Your task to perform on an android device: Open Google Chrome Image 0: 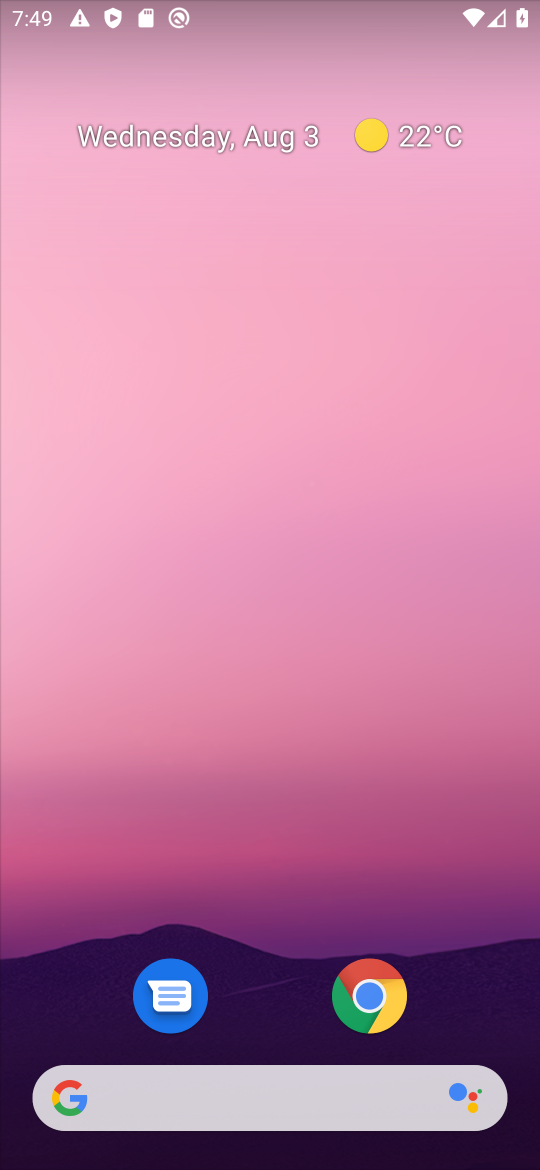
Step 0: click (351, 985)
Your task to perform on an android device: Open Google Chrome Image 1: 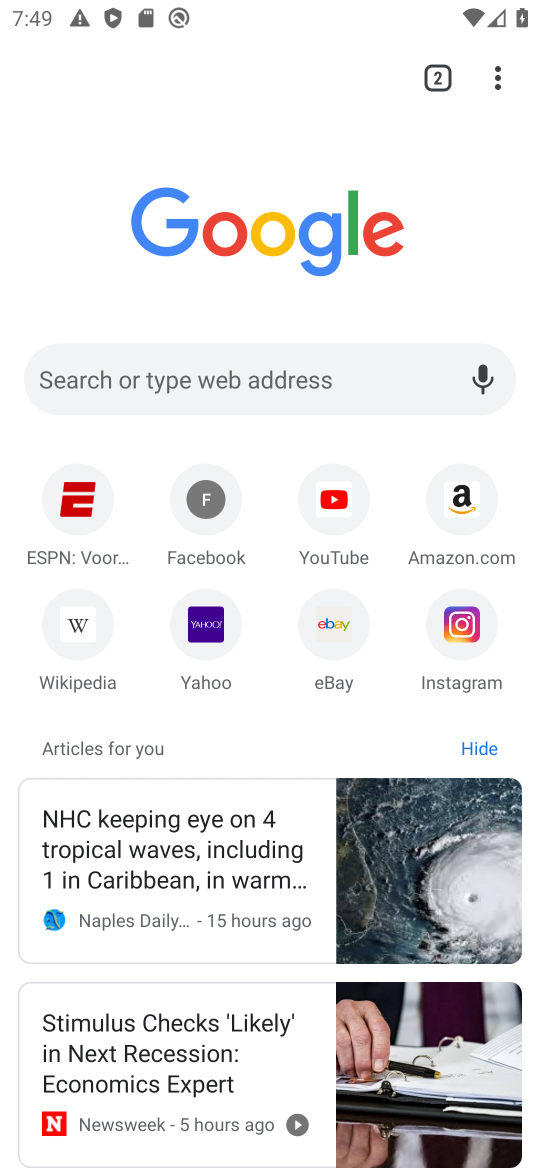
Step 1: task complete